Your task to perform on an android device: Do I have any events this weekend? Image 0: 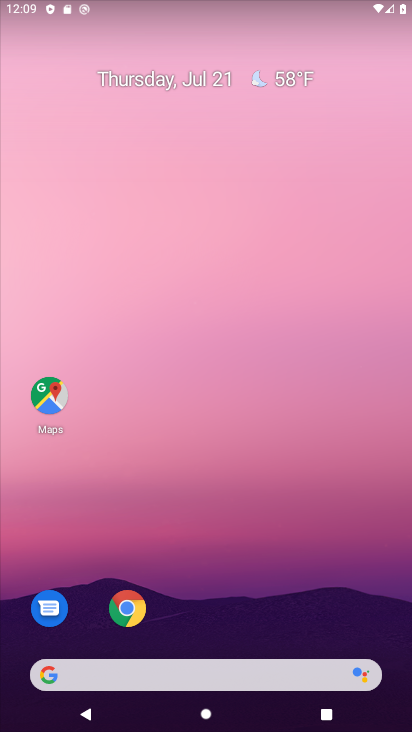
Step 0: press home button
Your task to perform on an android device: Do I have any events this weekend? Image 1: 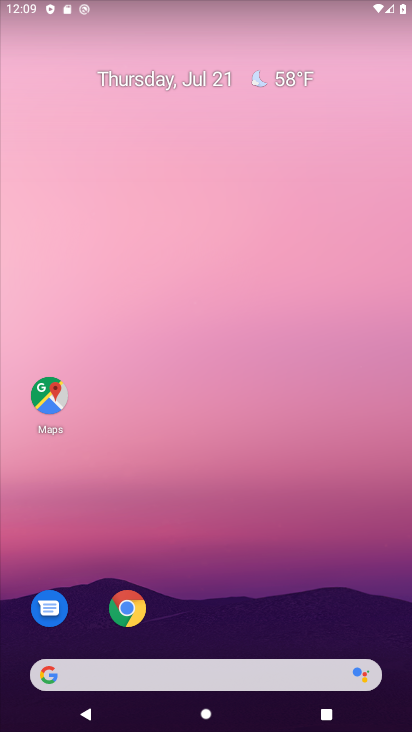
Step 1: drag from (219, 633) to (206, 59)
Your task to perform on an android device: Do I have any events this weekend? Image 2: 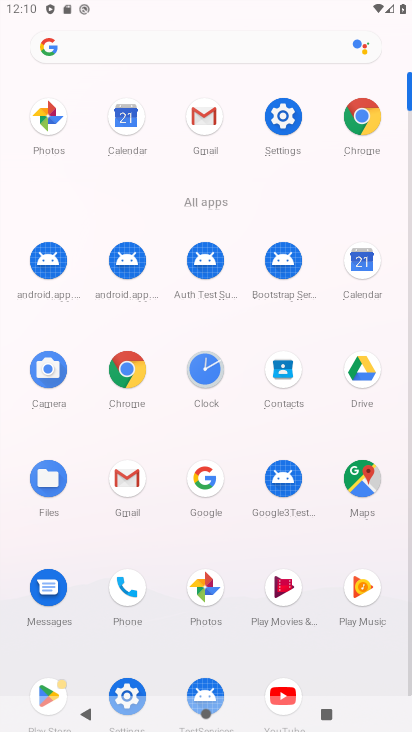
Step 2: click (358, 260)
Your task to perform on an android device: Do I have any events this weekend? Image 3: 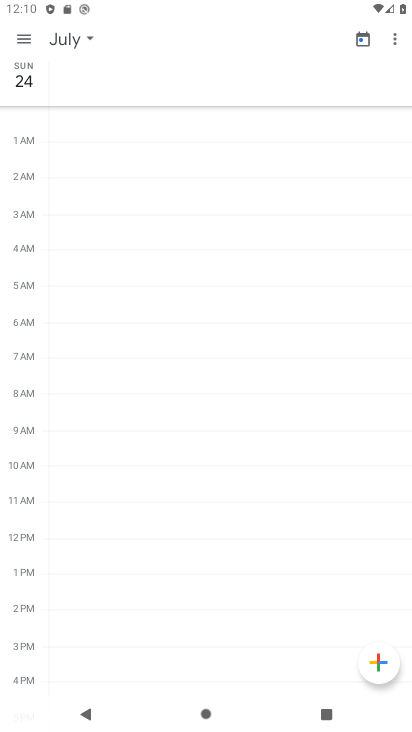
Step 3: click (20, 37)
Your task to perform on an android device: Do I have any events this weekend? Image 4: 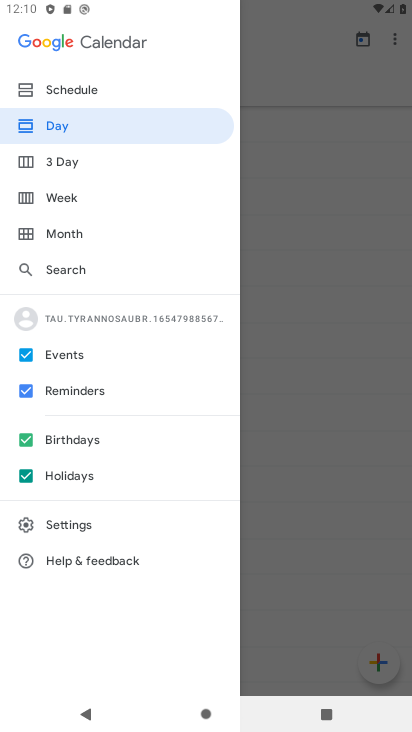
Step 4: click (19, 386)
Your task to perform on an android device: Do I have any events this weekend? Image 5: 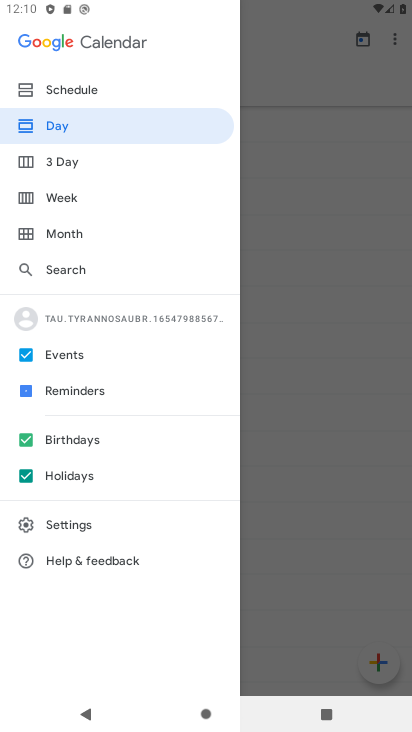
Step 5: click (34, 435)
Your task to perform on an android device: Do I have any events this weekend? Image 6: 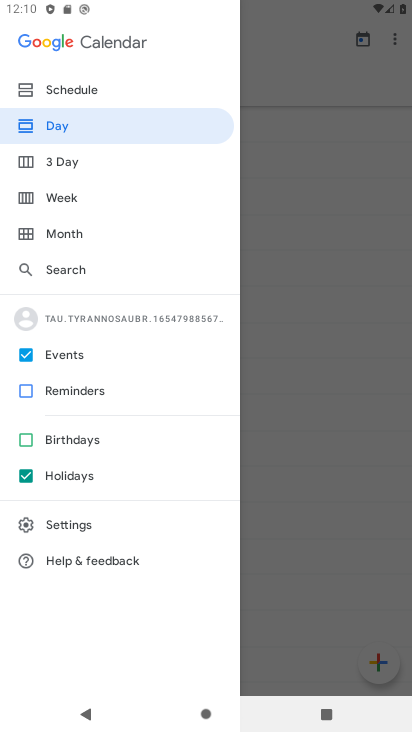
Step 6: click (27, 473)
Your task to perform on an android device: Do I have any events this weekend? Image 7: 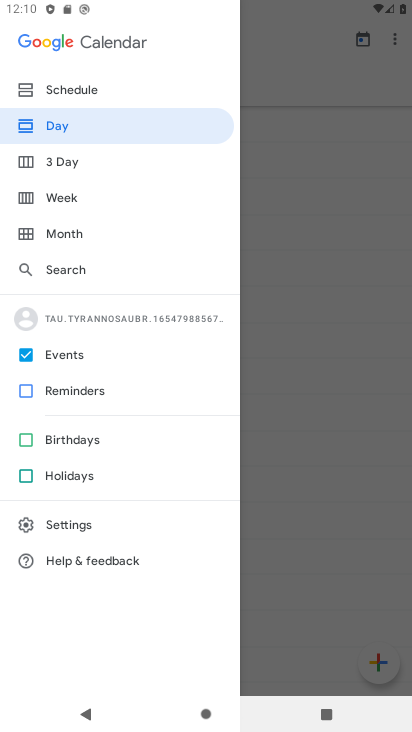
Step 7: click (82, 192)
Your task to perform on an android device: Do I have any events this weekend? Image 8: 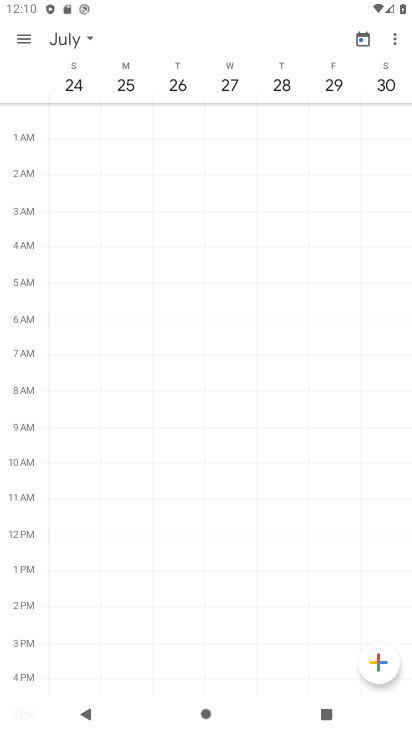
Step 8: drag from (71, 79) to (365, 100)
Your task to perform on an android device: Do I have any events this weekend? Image 9: 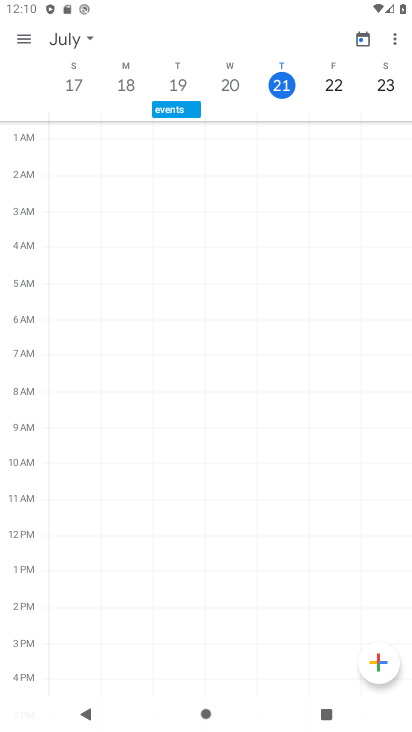
Step 9: click (329, 84)
Your task to perform on an android device: Do I have any events this weekend? Image 10: 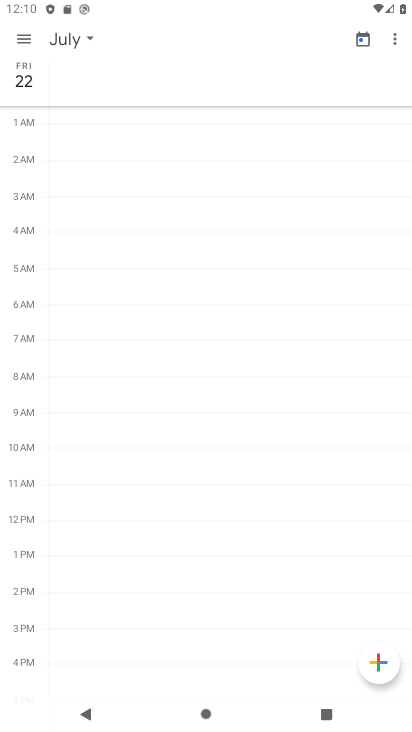
Step 10: click (34, 83)
Your task to perform on an android device: Do I have any events this weekend? Image 11: 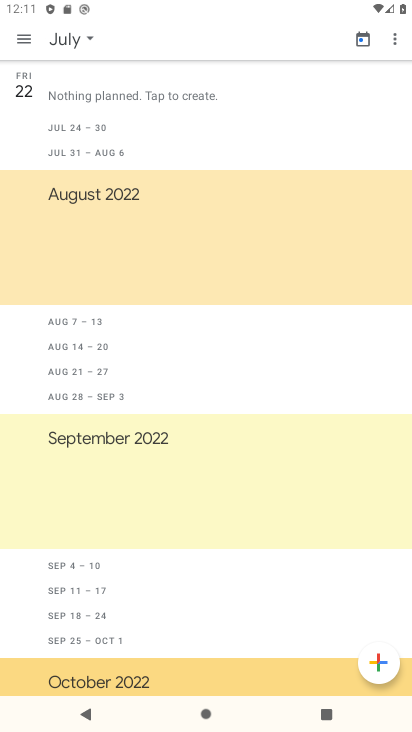
Step 11: task complete